Your task to perform on an android device: Open battery settings Image 0: 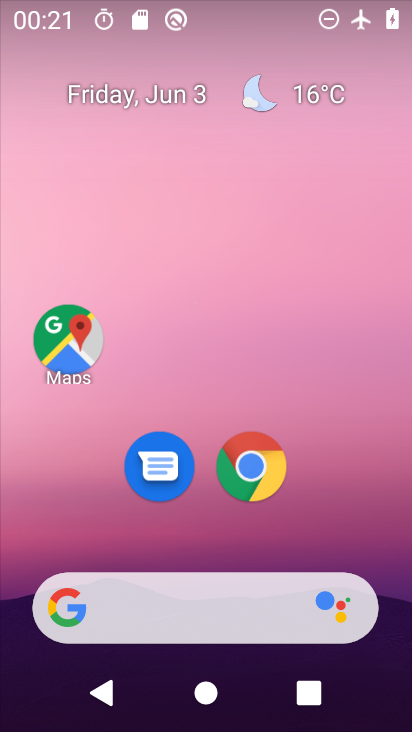
Step 0: drag from (186, 541) to (198, 186)
Your task to perform on an android device: Open battery settings Image 1: 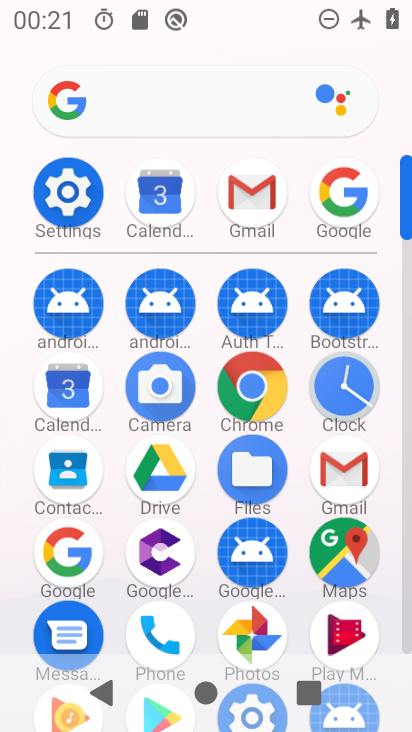
Step 1: click (75, 200)
Your task to perform on an android device: Open battery settings Image 2: 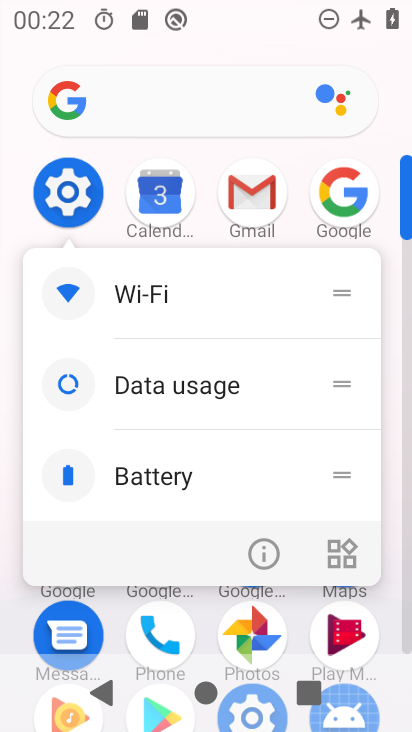
Step 2: click (51, 210)
Your task to perform on an android device: Open battery settings Image 3: 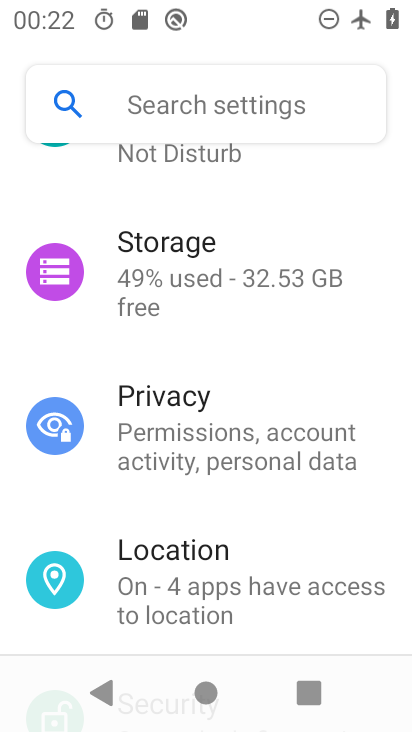
Step 3: drag from (237, 268) to (228, 557)
Your task to perform on an android device: Open battery settings Image 4: 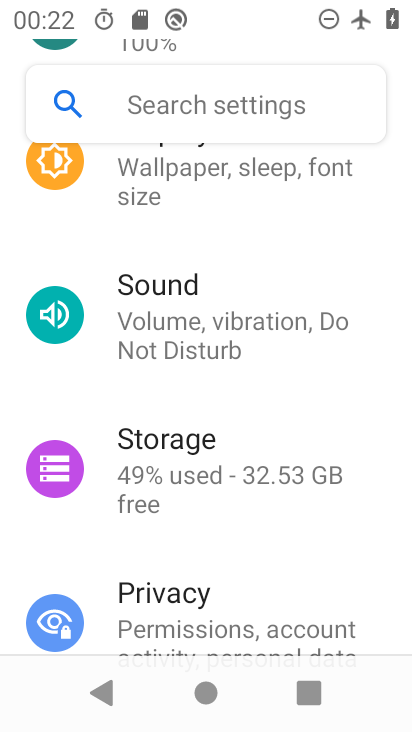
Step 4: drag from (228, 259) to (228, 483)
Your task to perform on an android device: Open battery settings Image 5: 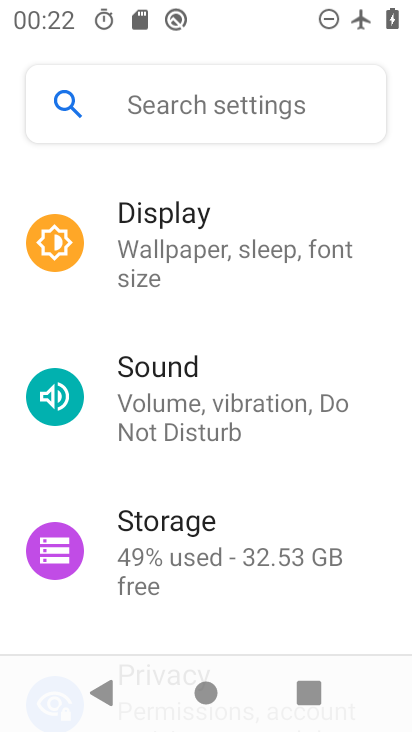
Step 5: drag from (233, 301) to (233, 463)
Your task to perform on an android device: Open battery settings Image 6: 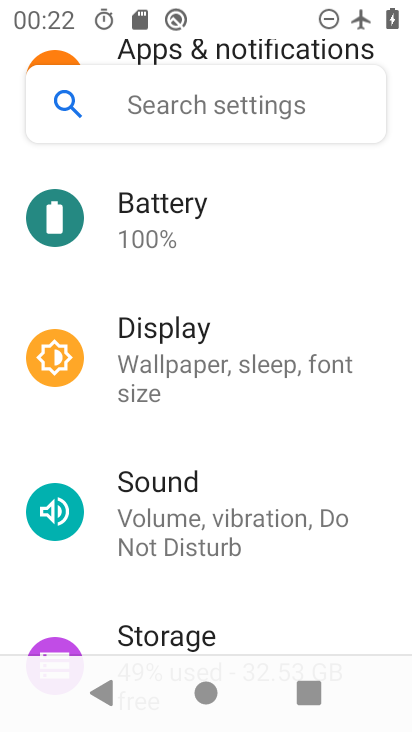
Step 6: click (212, 219)
Your task to perform on an android device: Open battery settings Image 7: 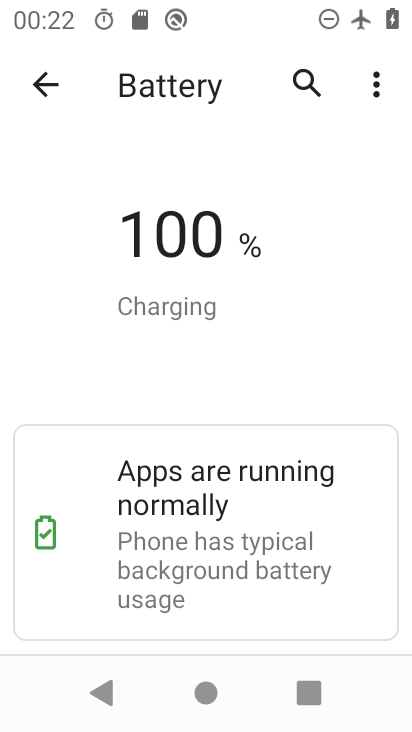
Step 7: task complete